Your task to perform on an android device: Play the last video I watched on Youtube Image 0: 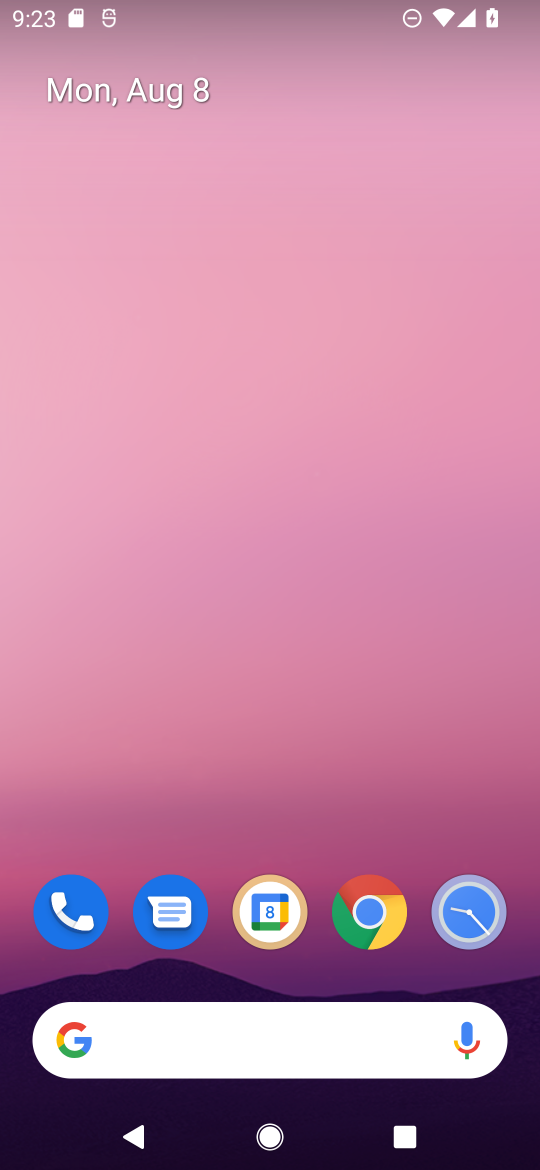
Step 0: drag from (489, 1000) to (374, 46)
Your task to perform on an android device: Play the last video I watched on Youtube Image 1: 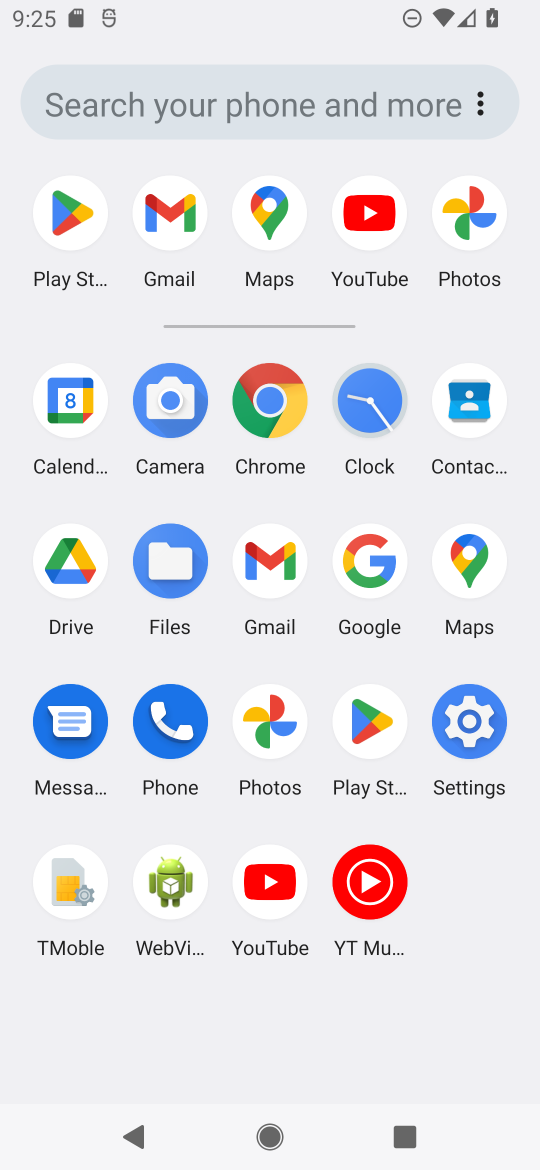
Step 1: click (260, 885)
Your task to perform on an android device: Play the last video I watched on Youtube Image 2: 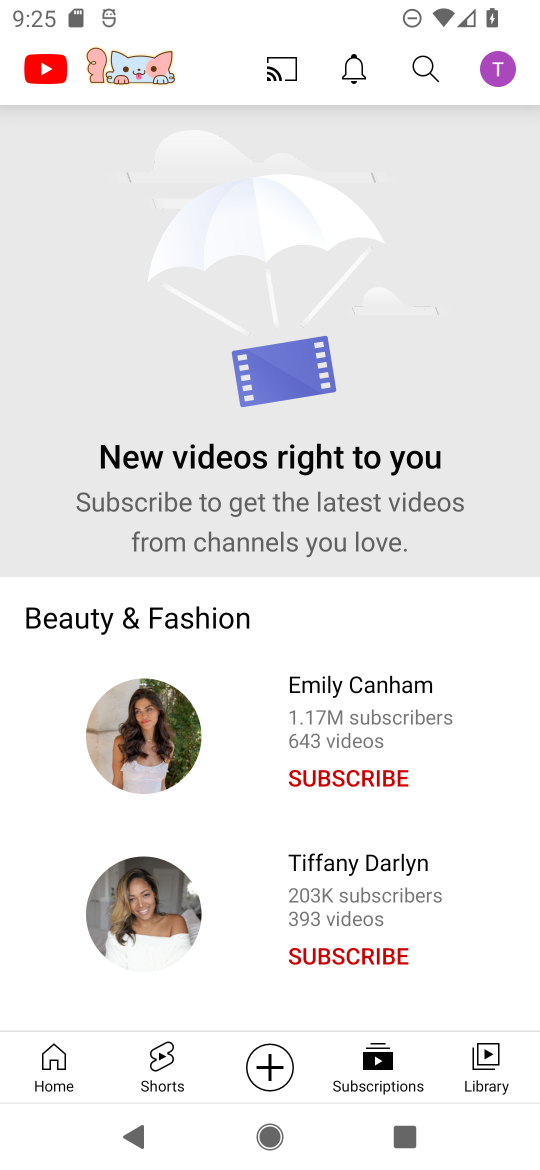
Step 2: task complete